Your task to perform on an android device: Search for "beats solo 3" on ebay.com, select the first entry, and add it to the cart. Image 0: 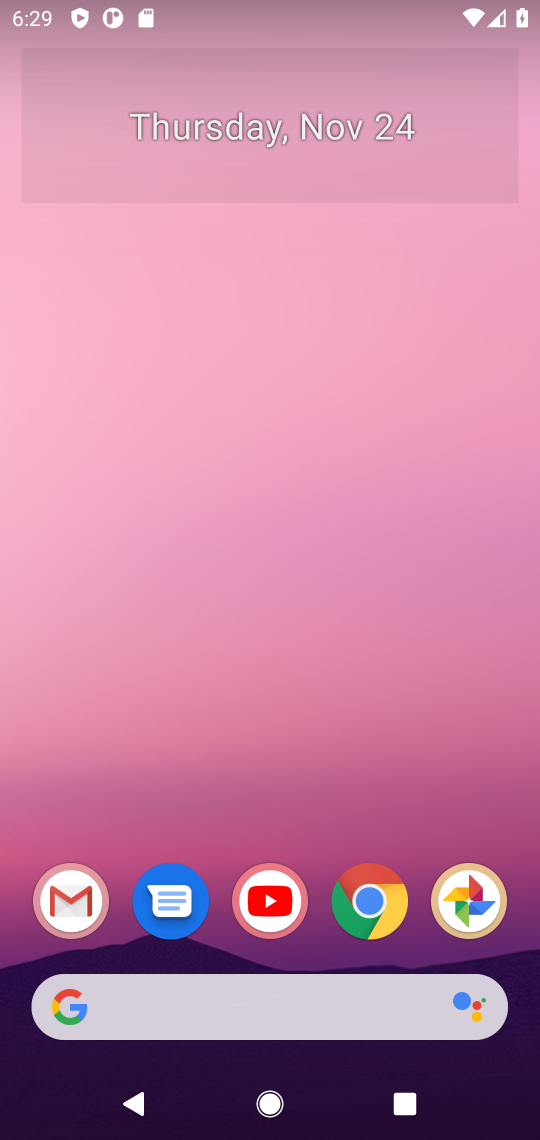
Step 0: click (356, 912)
Your task to perform on an android device: Search for "beats solo 3" on ebay.com, select the first entry, and add it to the cart. Image 1: 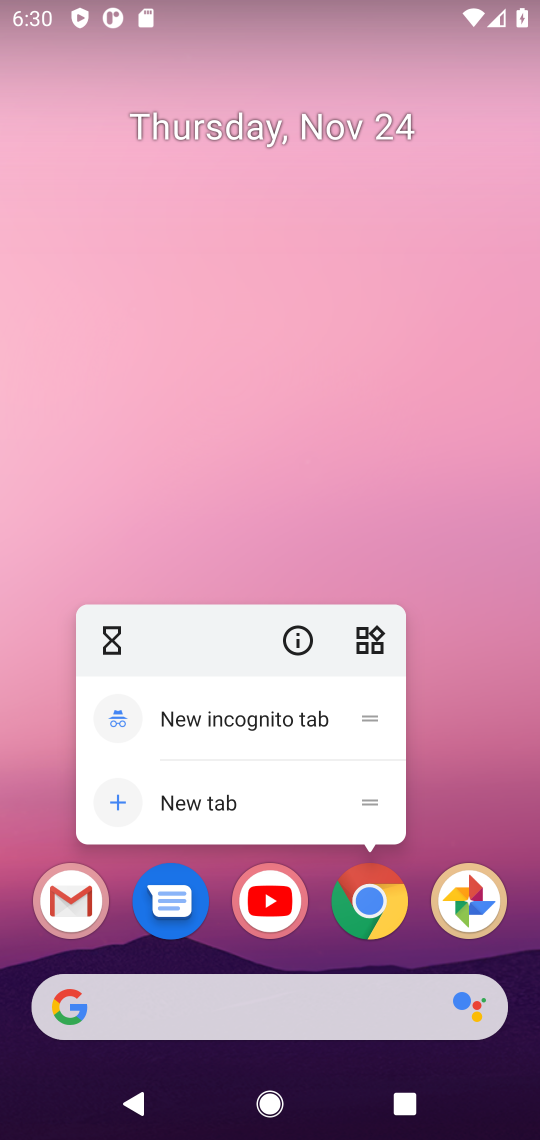
Step 1: click (386, 915)
Your task to perform on an android device: Search for "beats solo 3" on ebay.com, select the first entry, and add it to the cart. Image 2: 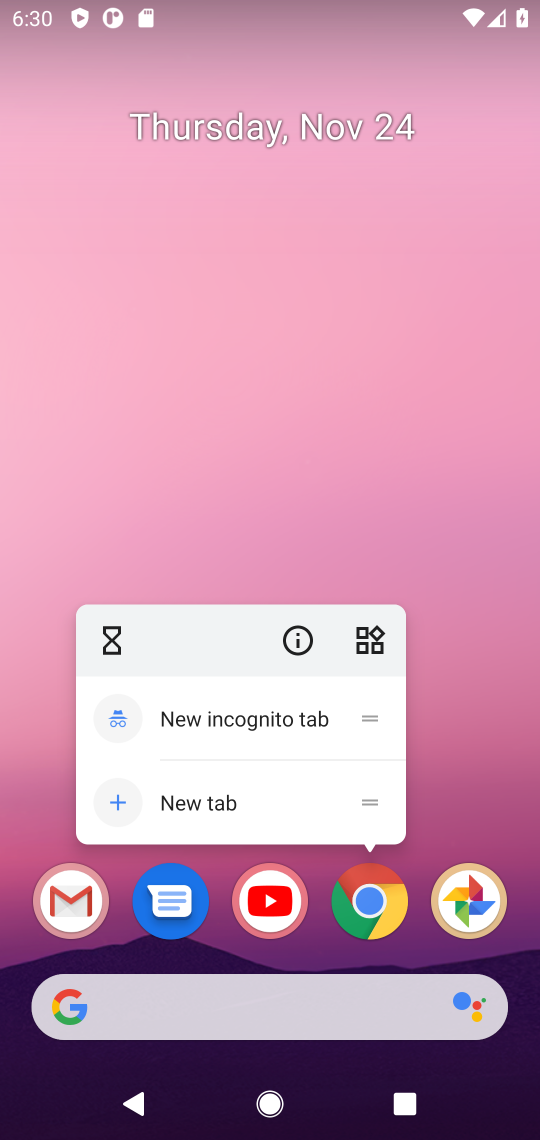
Step 2: click (386, 915)
Your task to perform on an android device: Search for "beats solo 3" on ebay.com, select the first entry, and add it to the cart. Image 3: 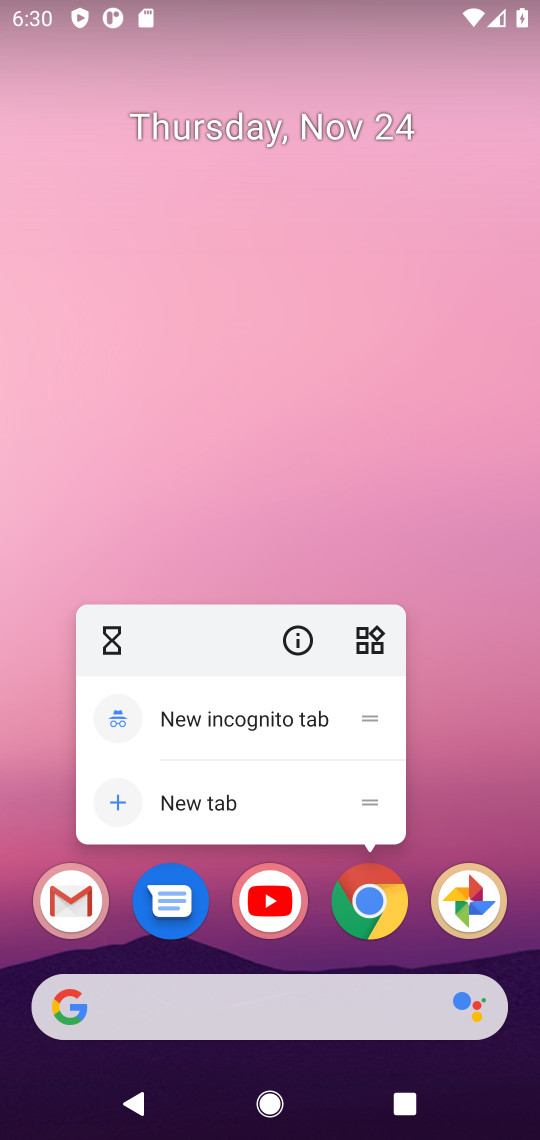
Step 3: click (386, 915)
Your task to perform on an android device: Search for "beats solo 3" on ebay.com, select the first entry, and add it to the cart. Image 4: 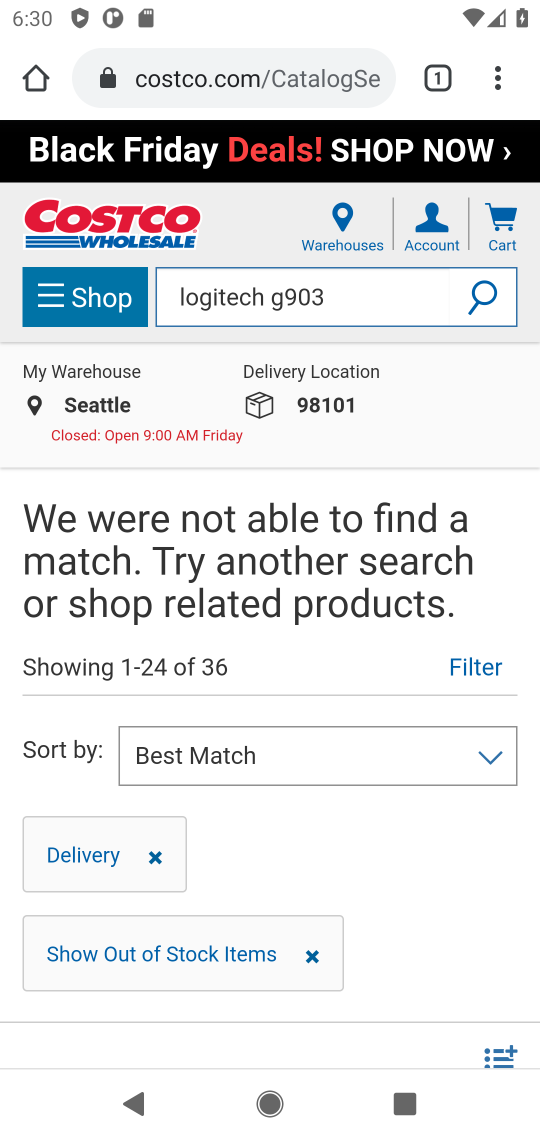
Step 4: click (257, 86)
Your task to perform on an android device: Search for "beats solo 3" on ebay.com, select the first entry, and add it to the cart. Image 5: 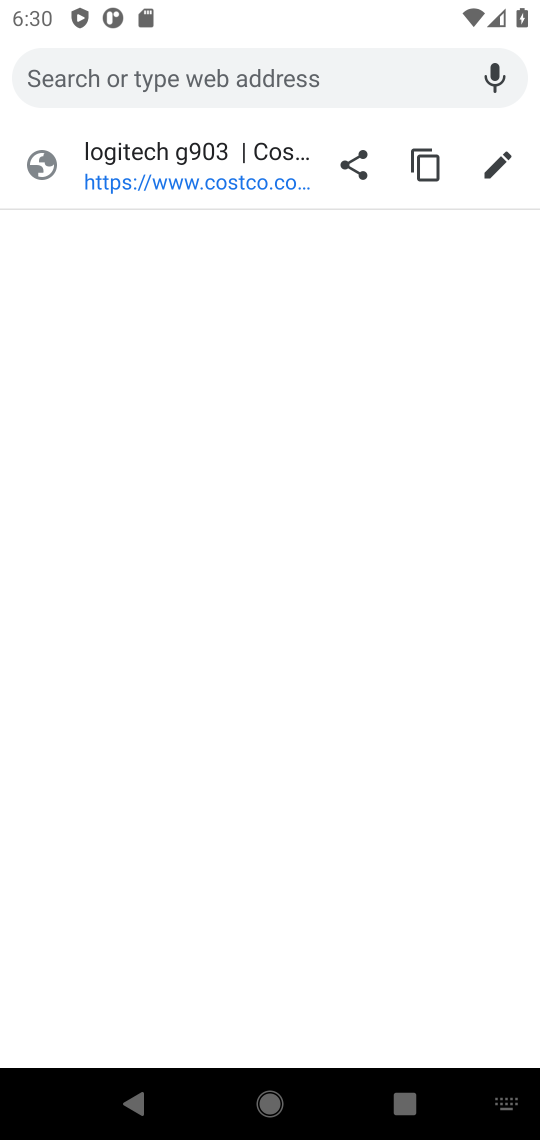
Step 5: type "ebay.com"
Your task to perform on an android device: Search for "beats solo 3" on ebay.com, select the first entry, and add it to the cart. Image 6: 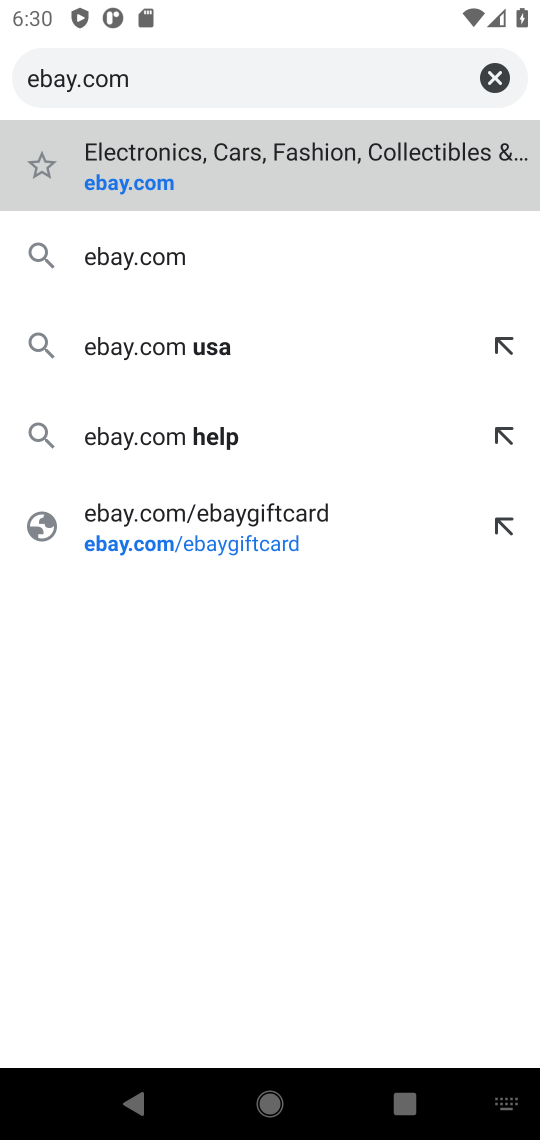
Step 6: click (342, 164)
Your task to perform on an android device: Search for "beats solo 3" on ebay.com, select the first entry, and add it to the cart. Image 7: 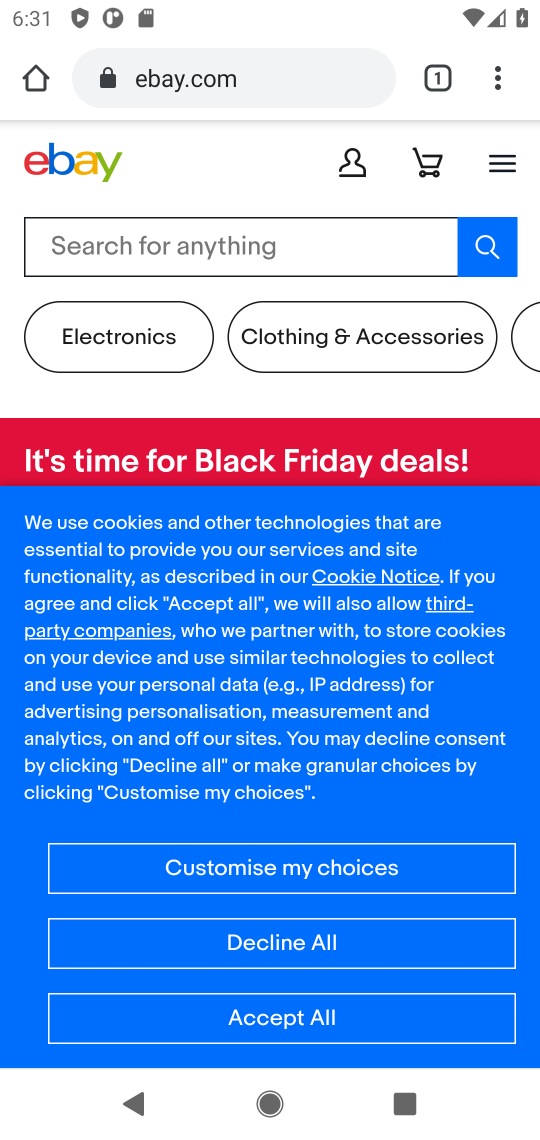
Step 7: click (311, 1039)
Your task to perform on an android device: Search for "beats solo 3" on ebay.com, select the first entry, and add it to the cart. Image 8: 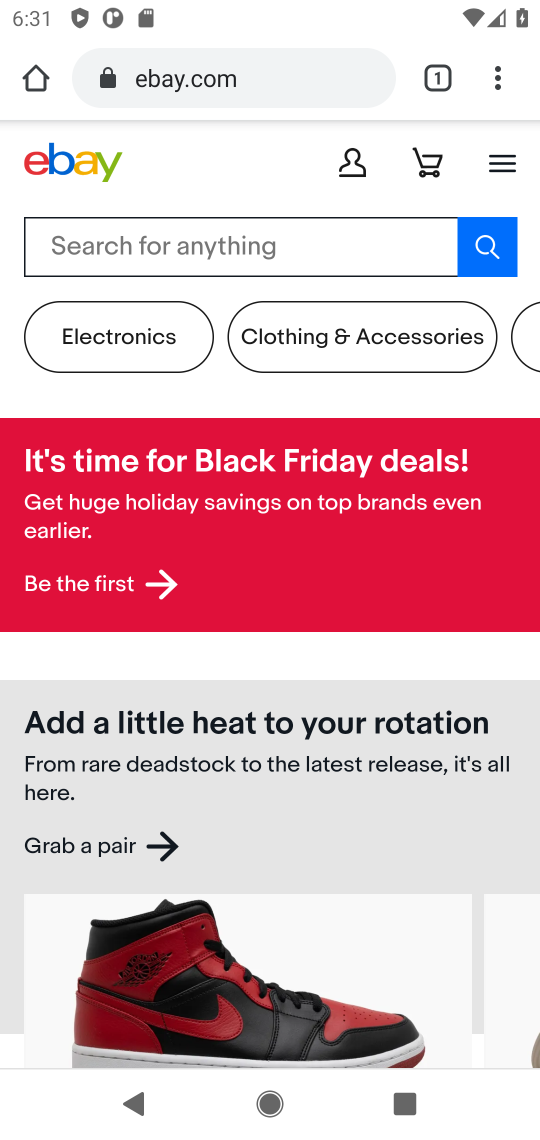
Step 8: click (232, 248)
Your task to perform on an android device: Search for "beats solo 3" on ebay.com, select the first entry, and add it to the cart. Image 9: 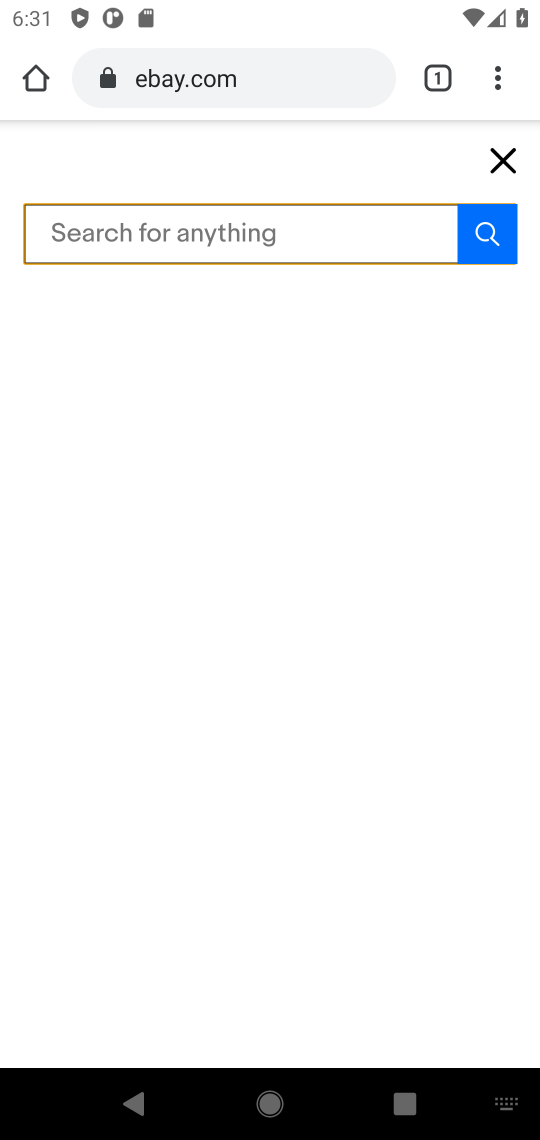
Step 9: type "beats solo 3"
Your task to perform on an android device: Search for "beats solo 3" on ebay.com, select the first entry, and add it to the cart. Image 10: 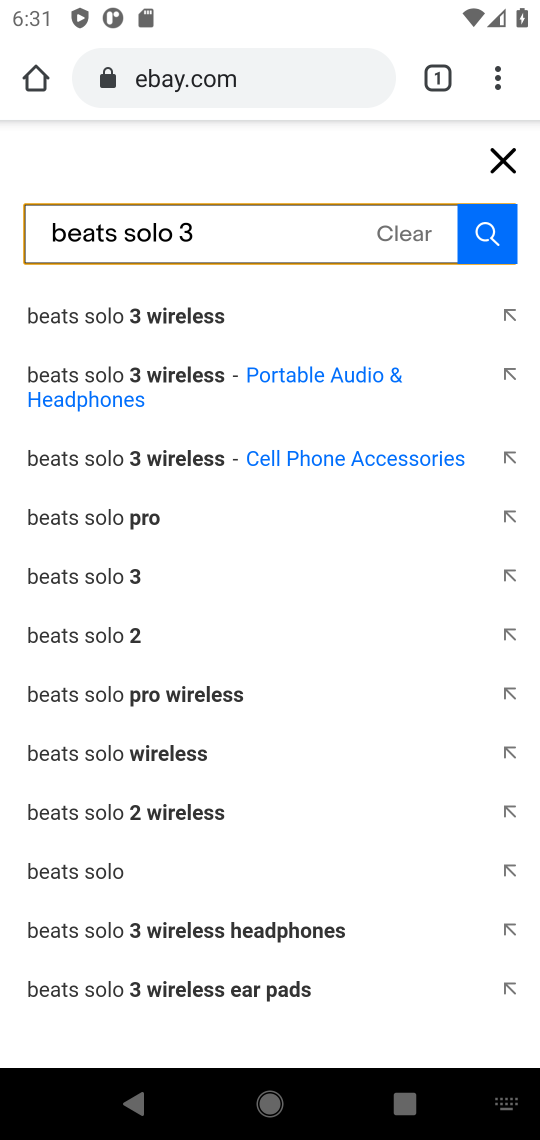
Step 10: press enter
Your task to perform on an android device: Search for "beats solo 3" on ebay.com, select the first entry, and add it to the cart. Image 11: 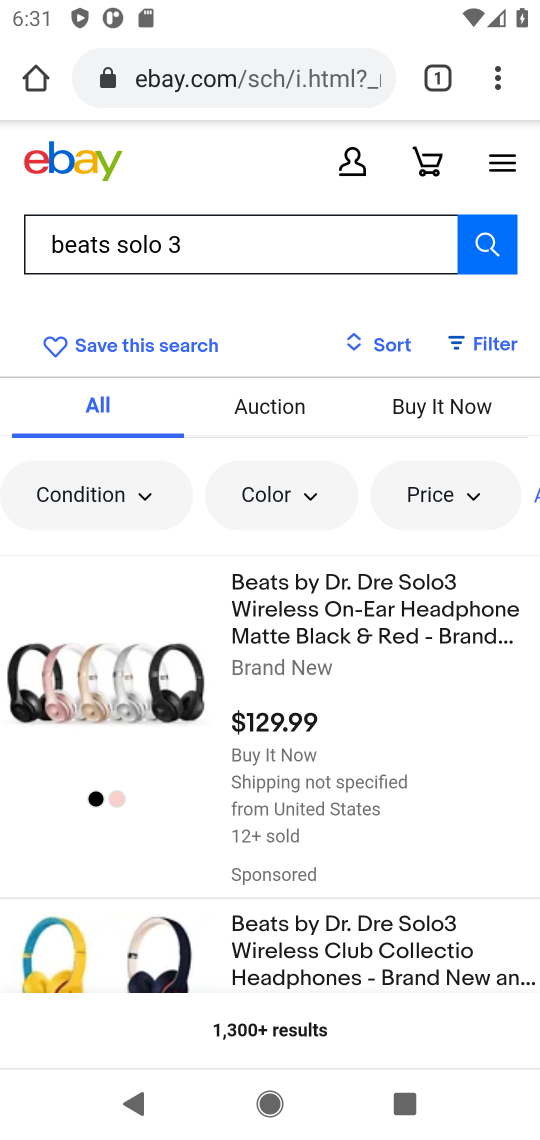
Step 11: click (422, 624)
Your task to perform on an android device: Search for "beats solo 3" on ebay.com, select the first entry, and add it to the cart. Image 12: 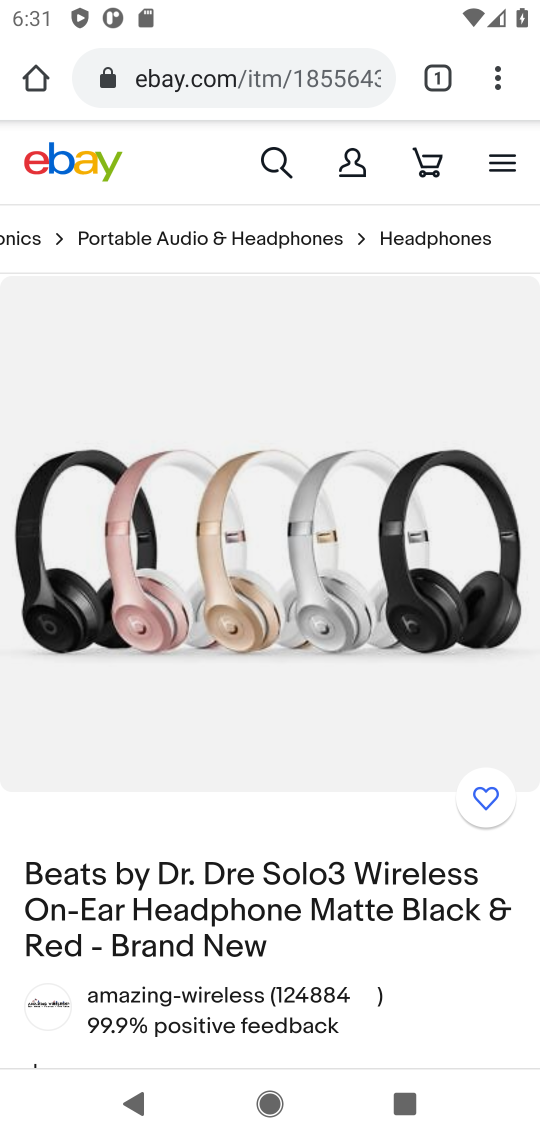
Step 12: drag from (356, 918) to (298, 393)
Your task to perform on an android device: Search for "beats solo 3" on ebay.com, select the first entry, and add it to the cart. Image 13: 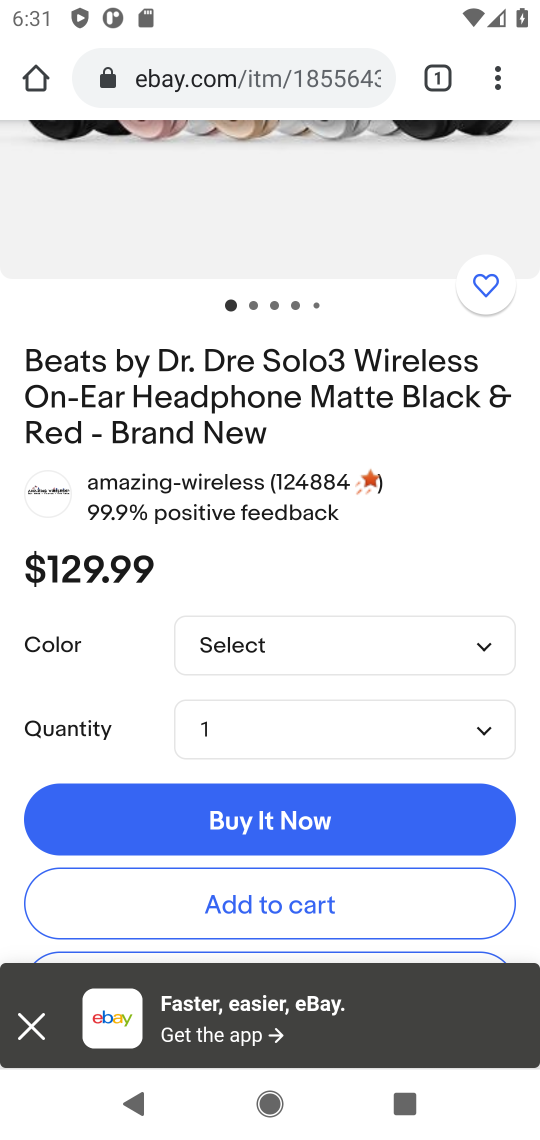
Step 13: click (295, 650)
Your task to perform on an android device: Search for "beats solo 3" on ebay.com, select the first entry, and add it to the cart. Image 14: 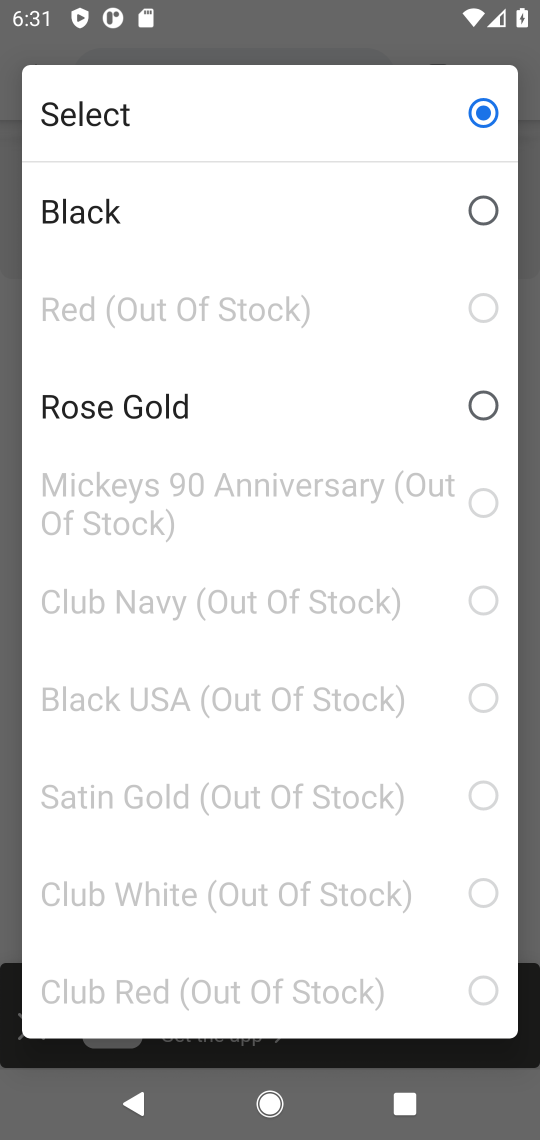
Step 14: click (208, 425)
Your task to perform on an android device: Search for "beats solo 3" on ebay.com, select the first entry, and add it to the cart. Image 15: 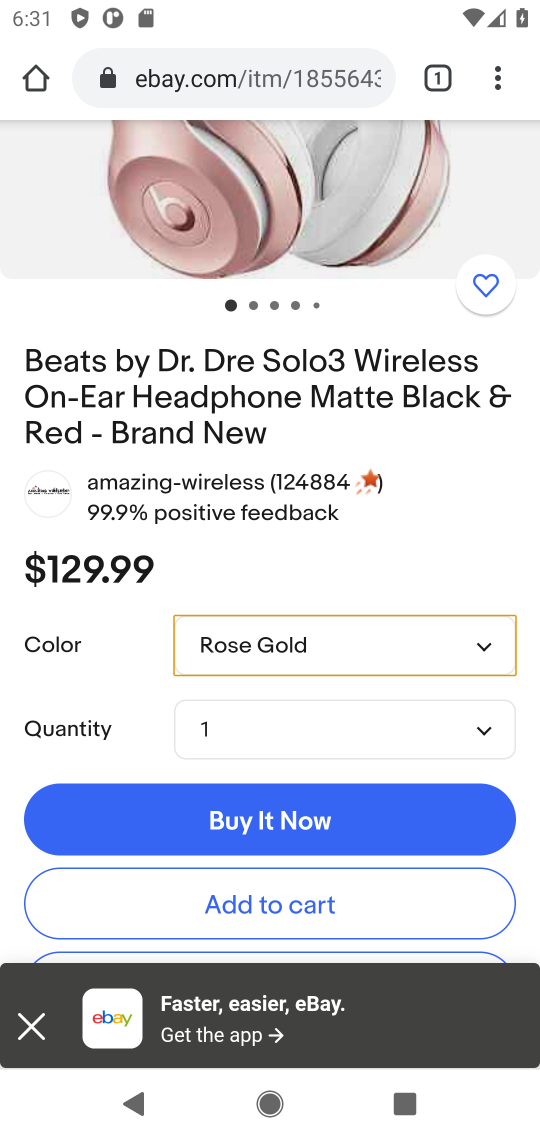
Step 15: click (310, 900)
Your task to perform on an android device: Search for "beats solo 3" on ebay.com, select the first entry, and add it to the cart. Image 16: 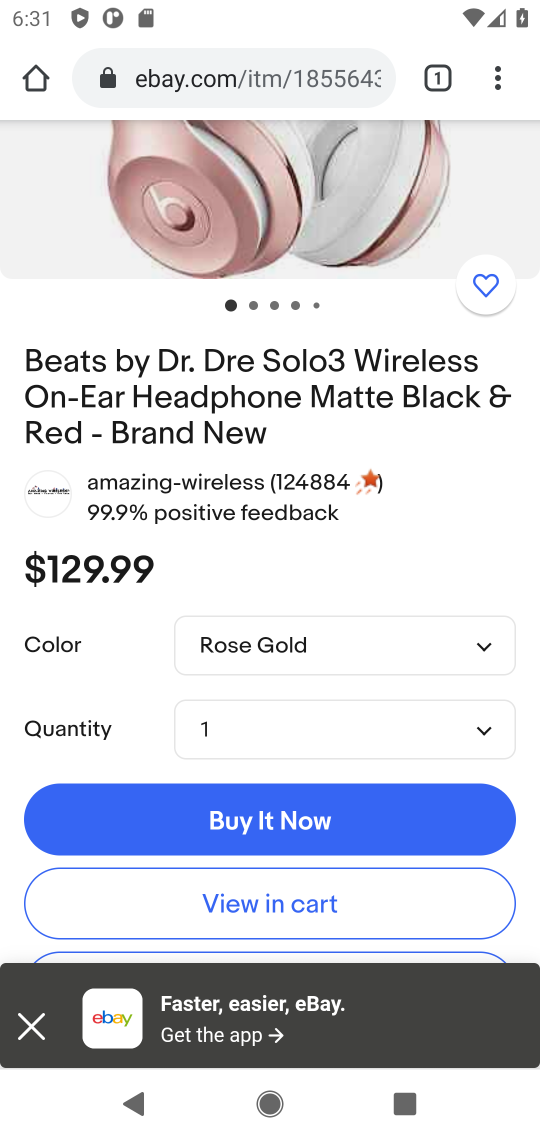
Step 16: task complete